Your task to perform on an android device: open sync settings in chrome Image 0: 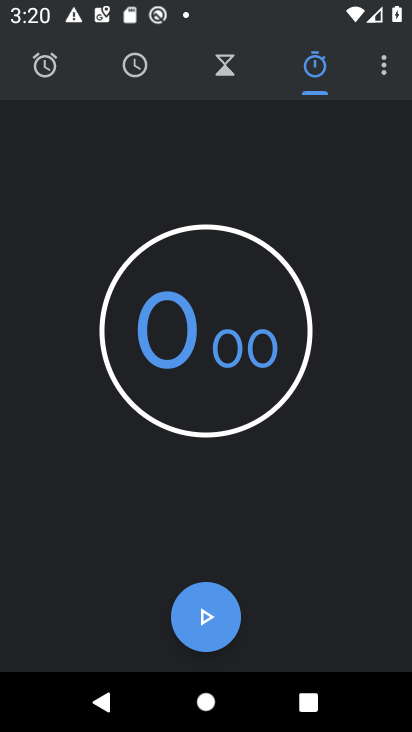
Step 0: press home button
Your task to perform on an android device: open sync settings in chrome Image 1: 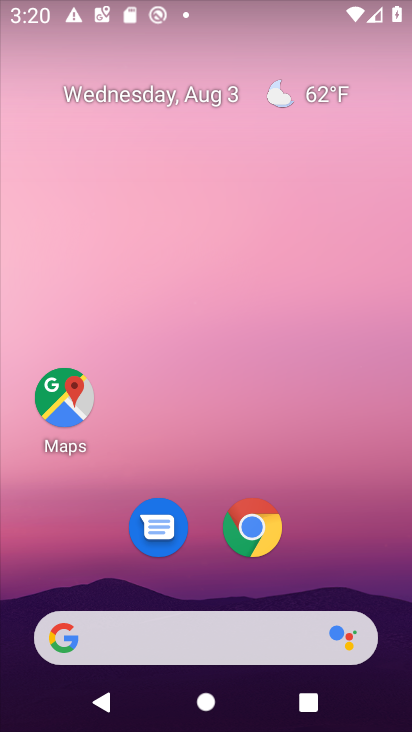
Step 1: drag from (337, 573) to (268, 100)
Your task to perform on an android device: open sync settings in chrome Image 2: 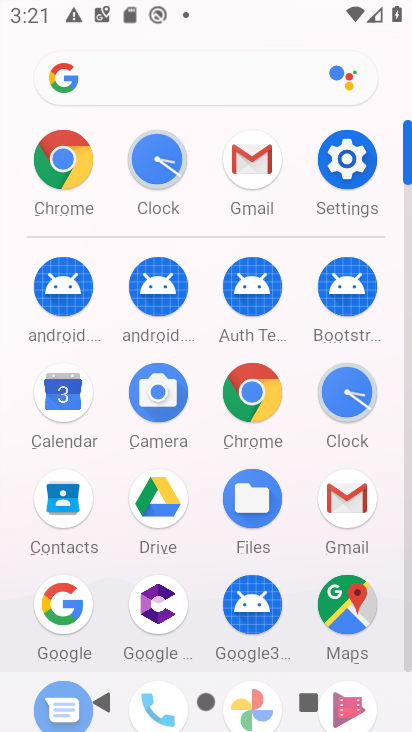
Step 2: click (253, 390)
Your task to perform on an android device: open sync settings in chrome Image 3: 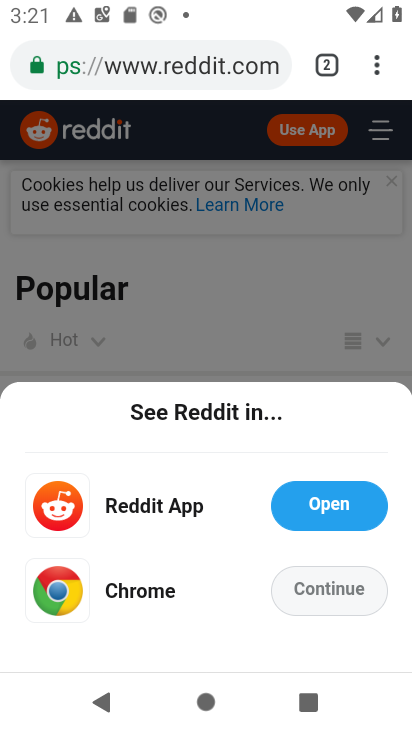
Step 3: drag from (377, 63) to (184, 572)
Your task to perform on an android device: open sync settings in chrome Image 4: 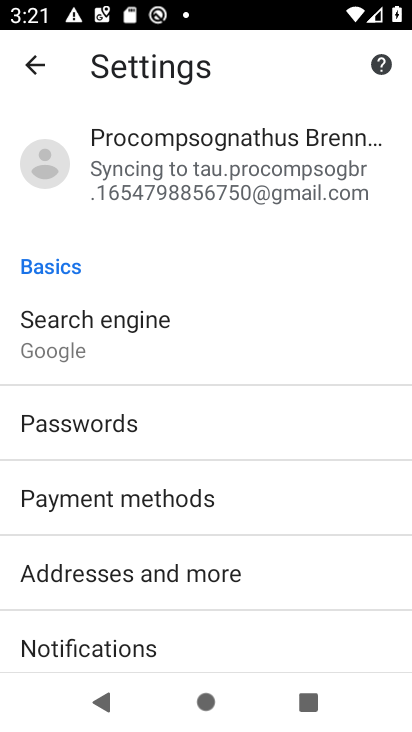
Step 4: click (312, 179)
Your task to perform on an android device: open sync settings in chrome Image 5: 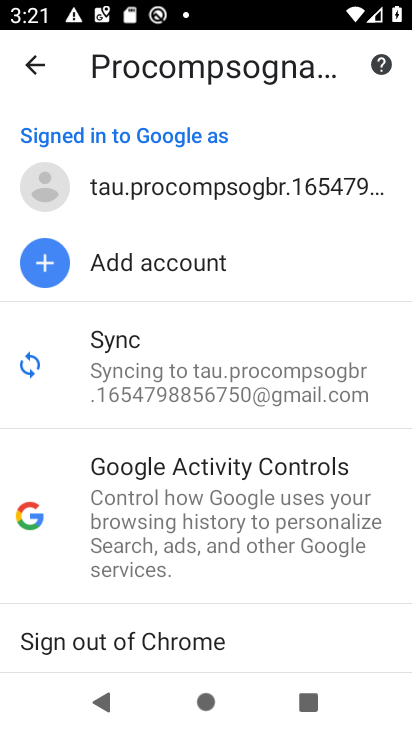
Step 5: click (170, 346)
Your task to perform on an android device: open sync settings in chrome Image 6: 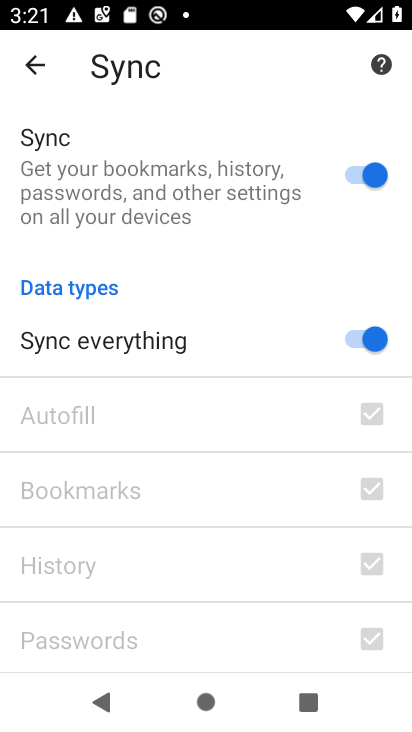
Step 6: task complete